Your task to perform on an android device: What's the weather going to be tomorrow? Image 0: 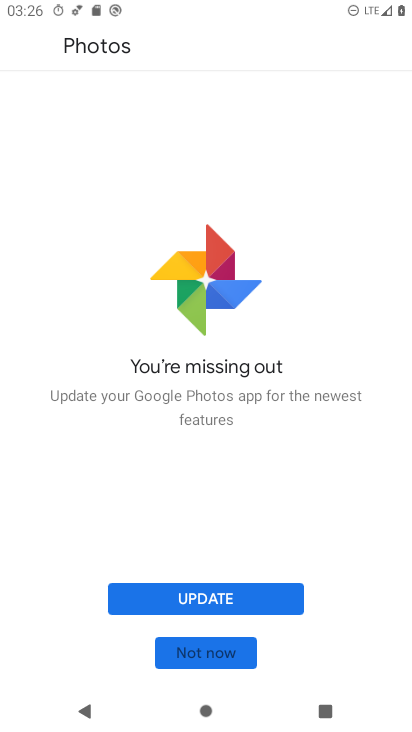
Step 0: press home button
Your task to perform on an android device: What's the weather going to be tomorrow? Image 1: 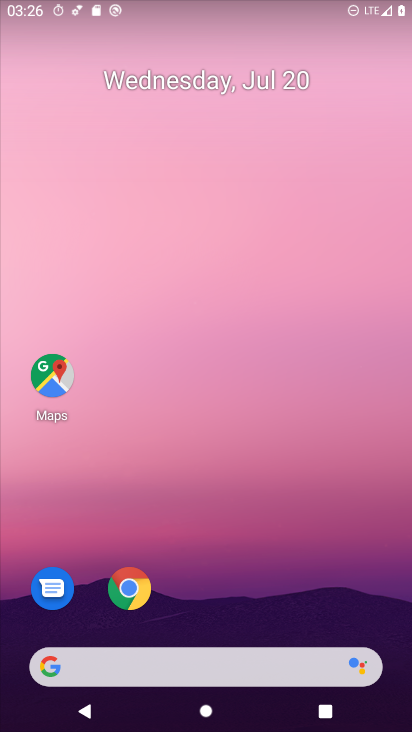
Step 1: drag from (230, 625) to (175, 94)
Your task to perform on an android device: What's the weather going to be tomorrow? Image 2: 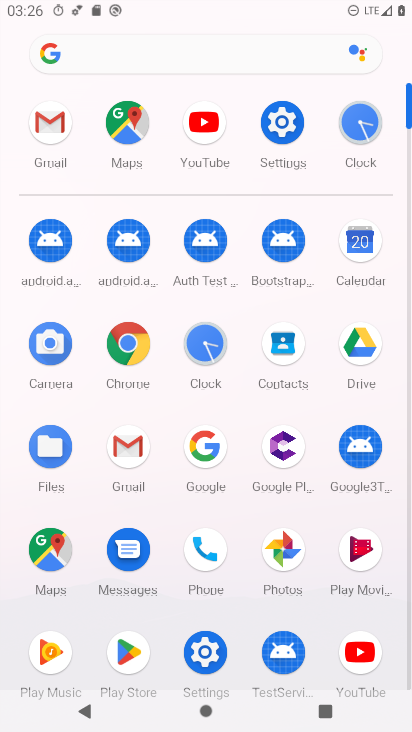
Step 2: click (206, 455)
Your task to perform on an android device: What's the weather going to be tomorrow? Image 3: 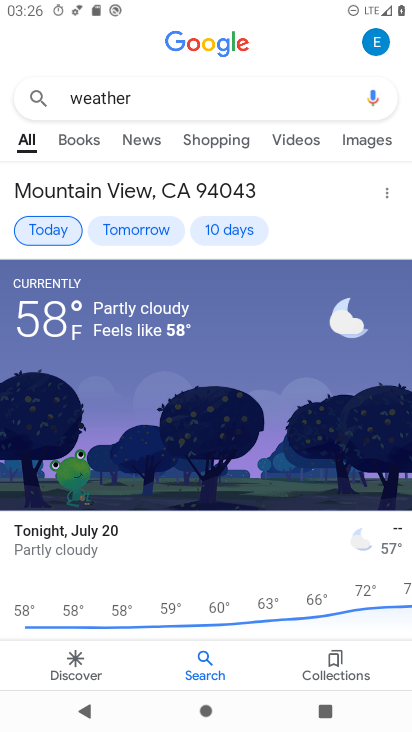
Step 3: click (139, 231)
Your task to perform on an android device: What's the weather going to be tomorrow? Image 4: 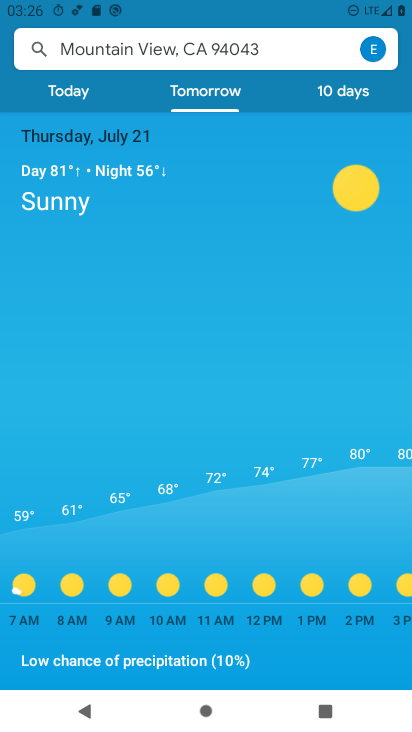
Step 4: task complete